Your task to perform on an android device: turn on location history Image 0: 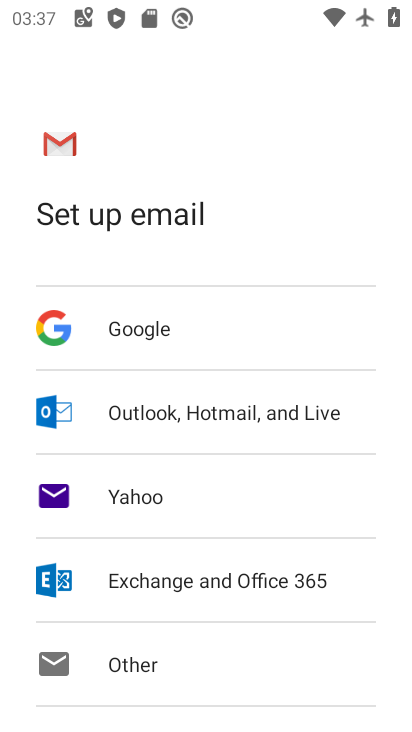
Step 0: press home button
Your task to perform on an android device: turn on location history Image 1: 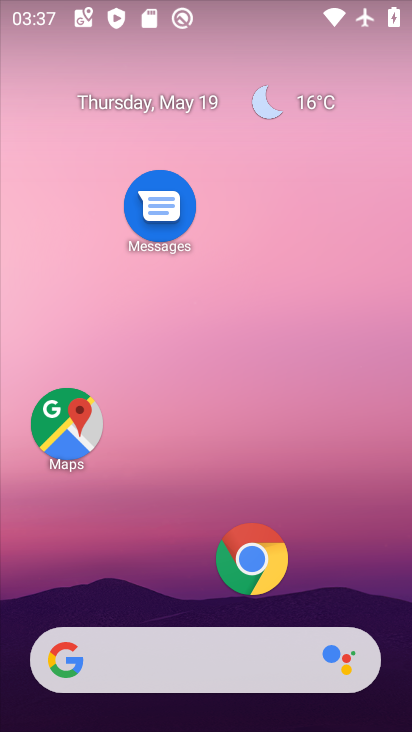
Step 1: drag from (191, 572) to (213, 319)
Your task to perform on an android device: turn on location history Image 2: 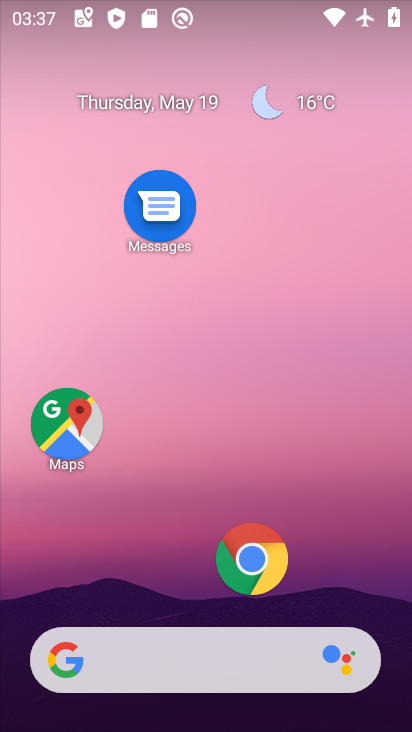
Step 2: drag from (170, 589) to (174, 300)
Your task to perform on an android device: turn on location history Image 3: 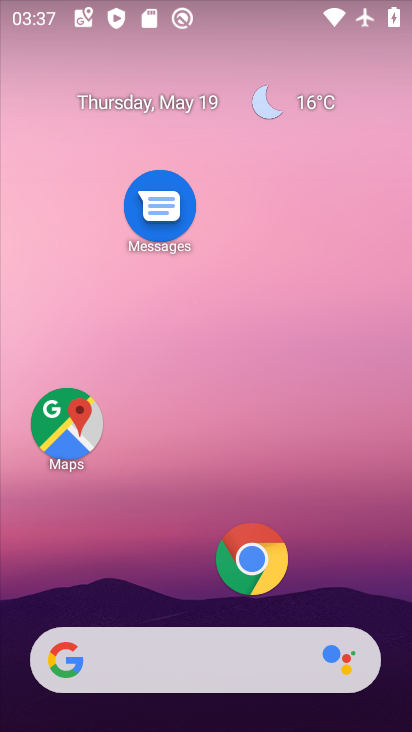
Step 3: drag from (179, 588) to (211, 116)
Your task to perform on an android device: turn on location history Image 4: 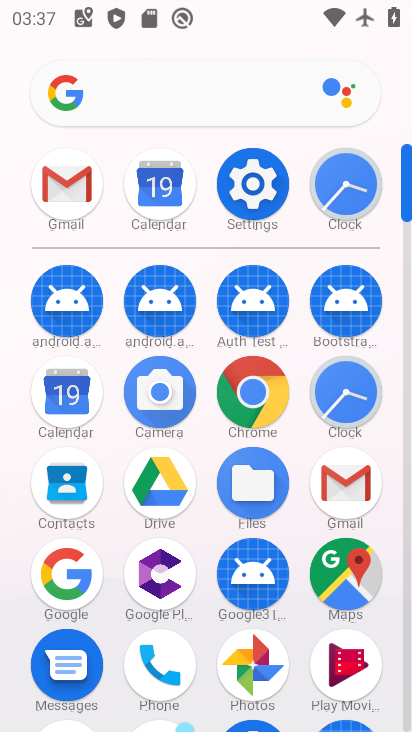
Step 4: click (223, 159)
Your task to perform on an android device: turn on location history Image 5: 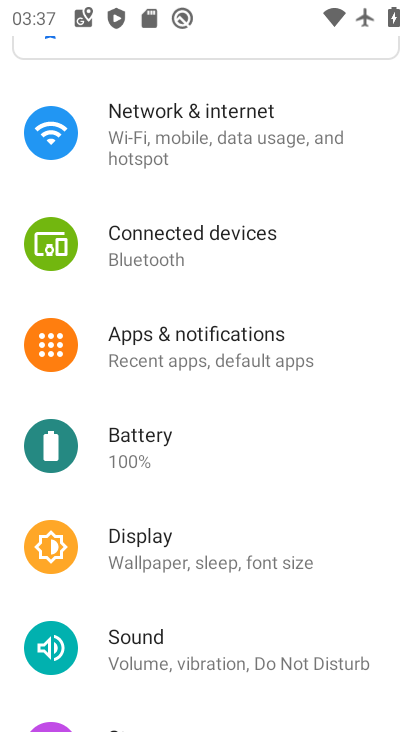
Step 5: drag from (190, 647) to (197, 331)
Your task to perform on an android device: turn on location history Image 6: 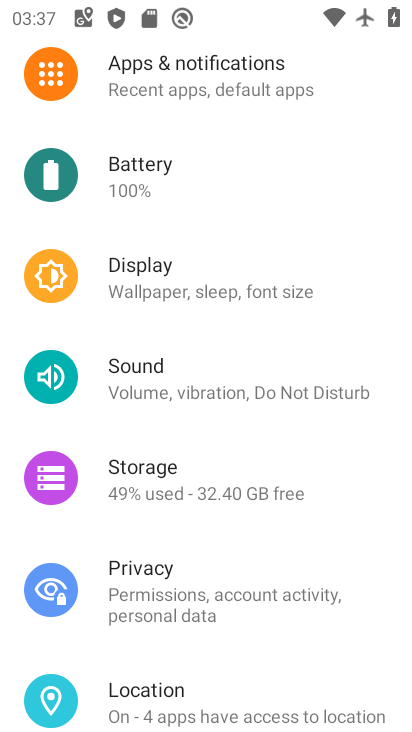
Step 6: click (189, 700)
Your task to perform on an android device: turn on location history Image 7: 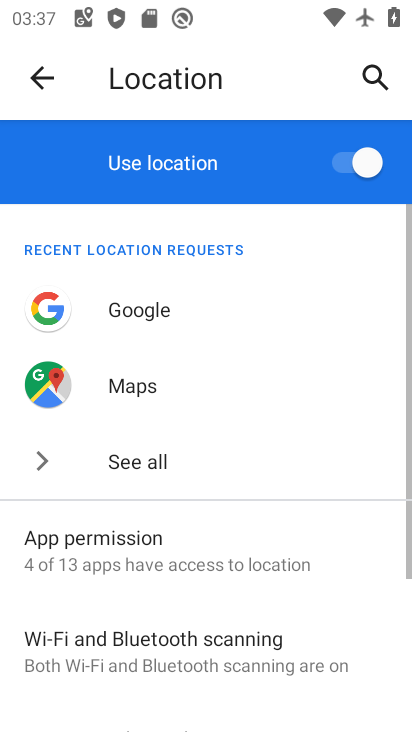
Step 7: drag from (174, 667) to (211, 424)
Your task to perform on an android device: turn on location history Image 8: 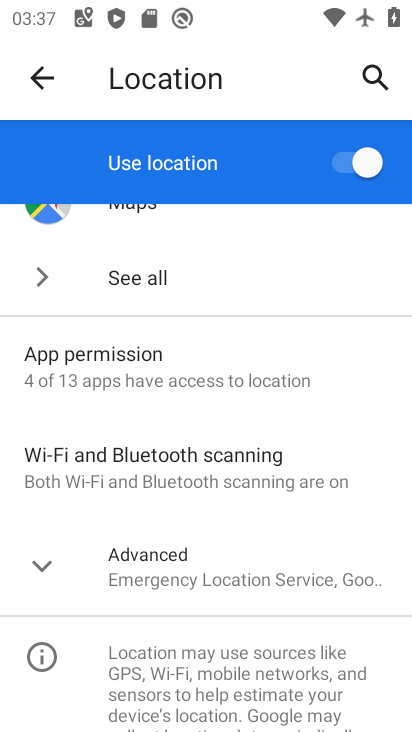
Step 8: click (196, 561)
Your task to perform on an android device: turn on location history Image 9: 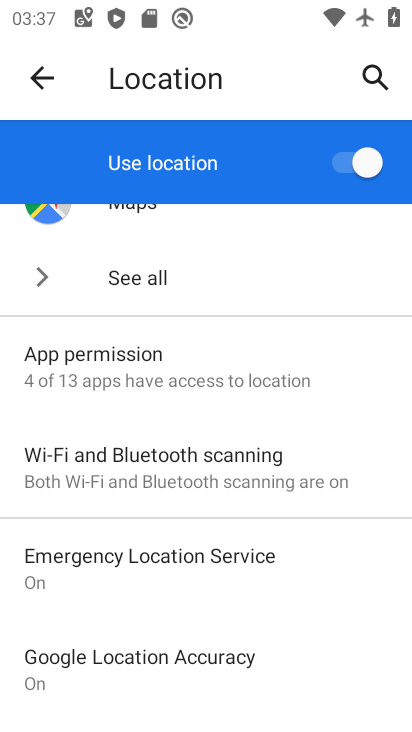
Step 9: click (224, 656)
Your task to perform on an android device: turn on location history Image 10: 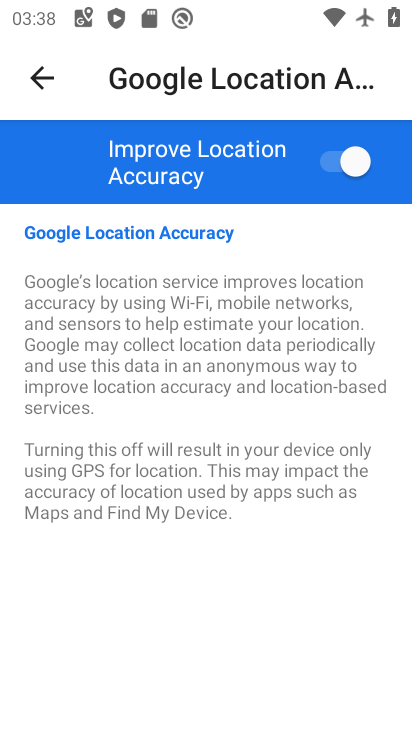
Step 10: click (32, 82)
Your task to perform on an android device: turn on location history Image 11: 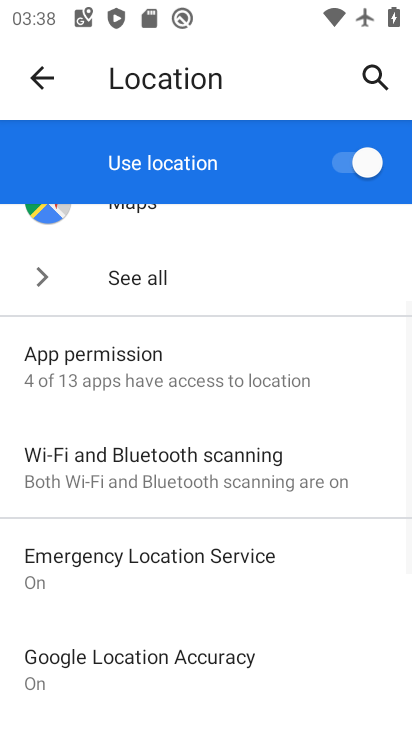
Step 11: drag from (217, 665) to (216, 416)
Your task to perform on an android device: turn on location history Image 12: 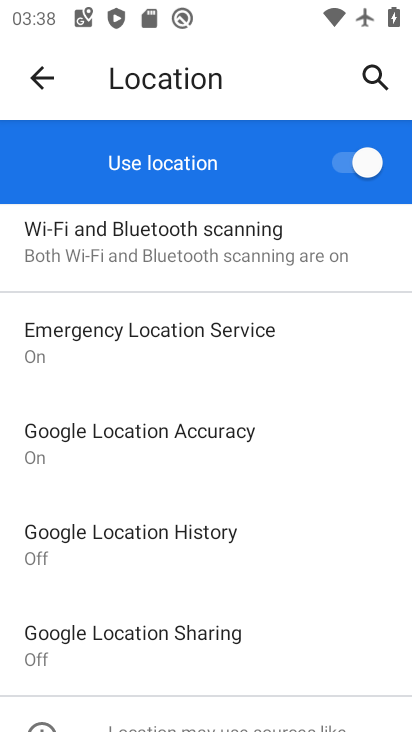
Step 12: click (165, 526)
Your task to perform on an android device: turn on location history Image 13: 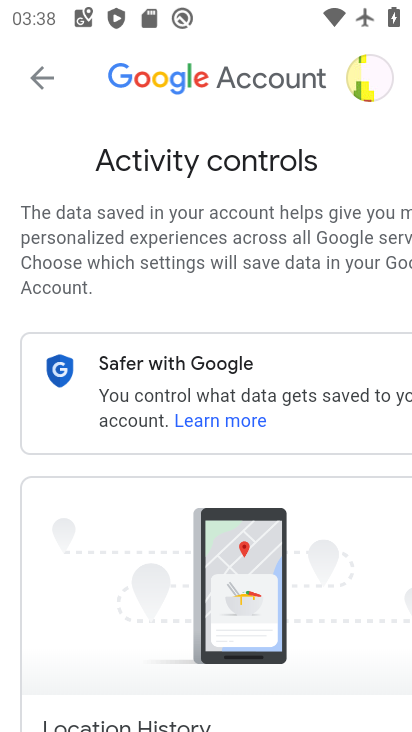
Step 13: task complete